Your task to perform on an android device: check android version Image 0: 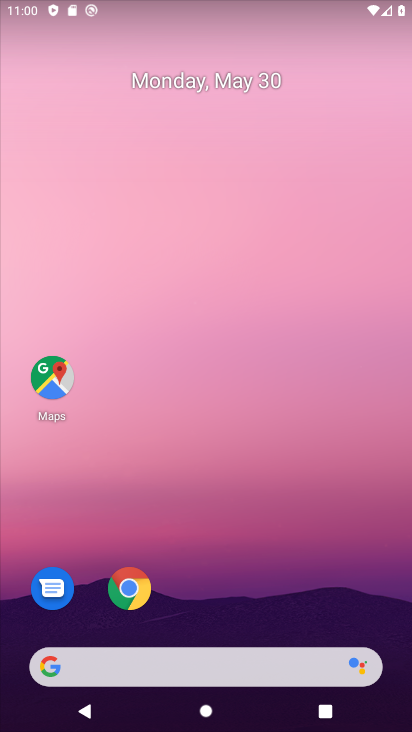
Step 0: press home button
Your task to perform on an android device: check android version Image 1: 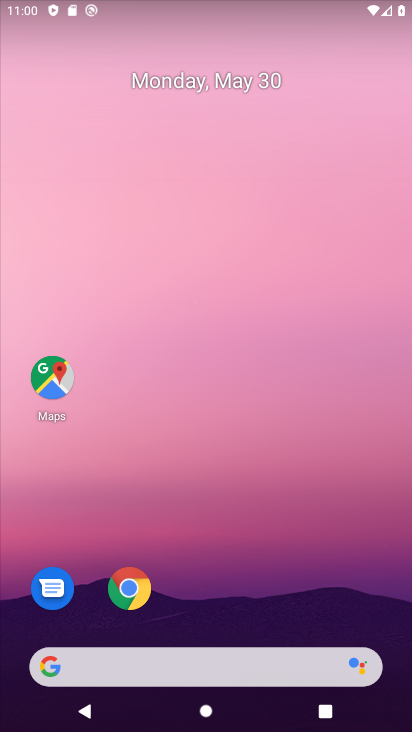
Step 1: drag from (209, 633) to (190, 59)
Your task to perform on an android device: check android version Image 2: 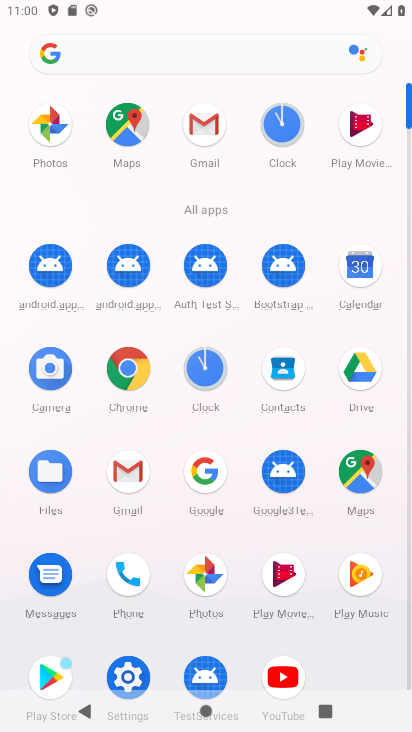
Step 2: click (128, 667)
Your task to perform on an android device: check android version Image 3: 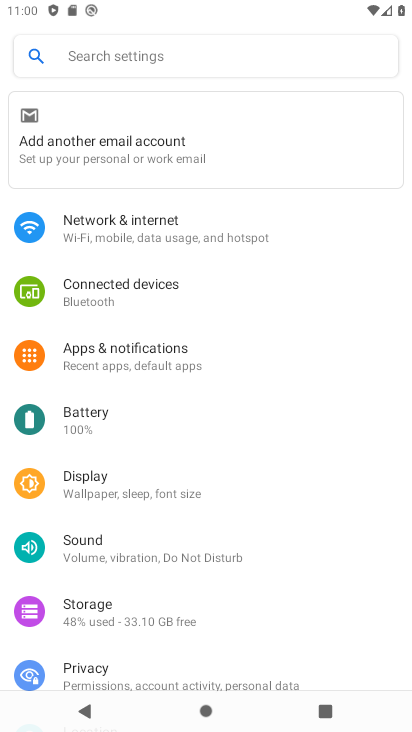
Step 3: drag from (138, 650) to (142, 123)
Your task to perform on an android device: check android version Image 4: 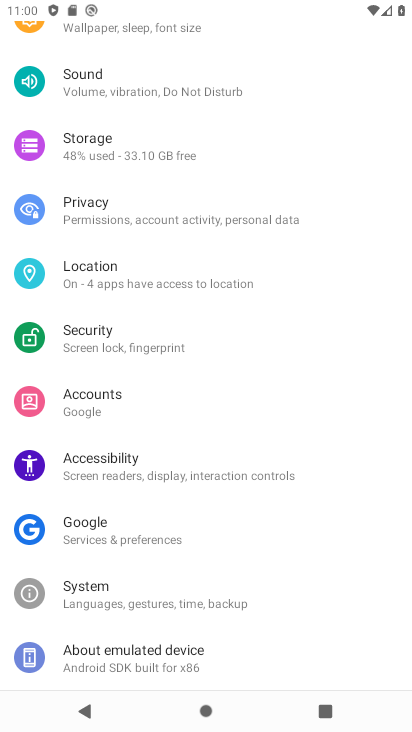
Step 4: click (211, 655)
Your task to perform on an android device: check android version Image 5: 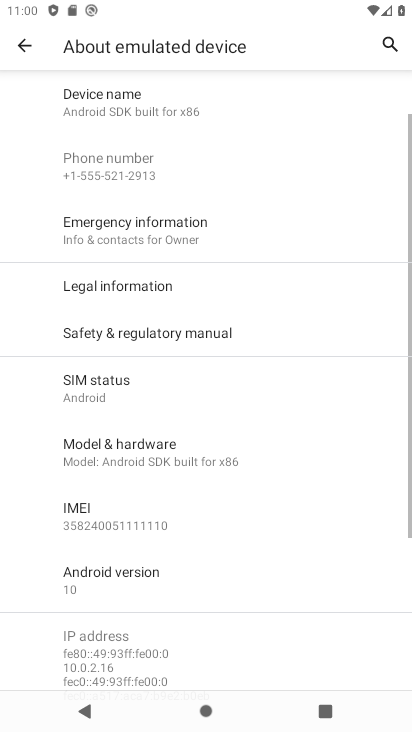
Step 5: click (106, 589)
Your task to perform on an android device: check android version Image 6: 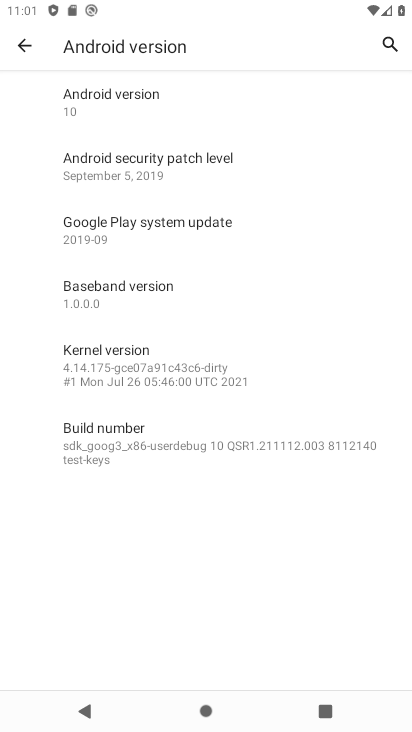
Step 6: task complete